Your task to perform on an android device: Go to settings Image 0: 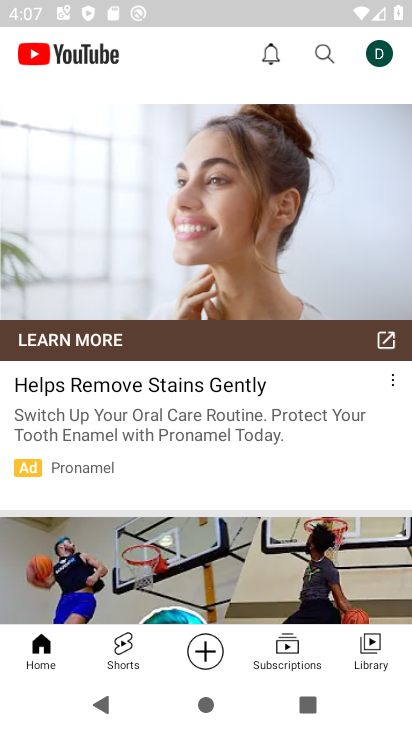
Step 0: press home button
Your task to perform on an android device: Go to settings Image 1: 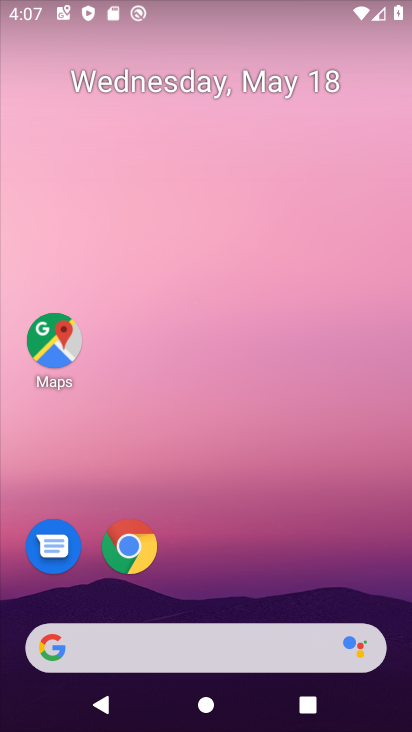
Step 1: drag from (200, 567) to (275, 0)
Your task to perform on an android device: Go to settings Image 2: 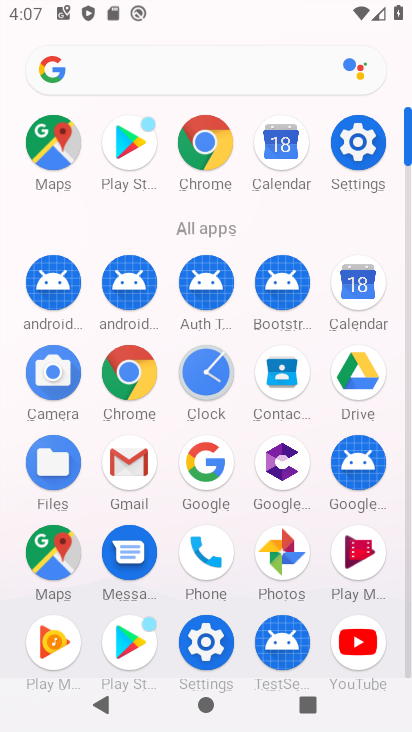
Step 2: click (356, 165)
Your task to perform on an android device: Go to settings Image 3: 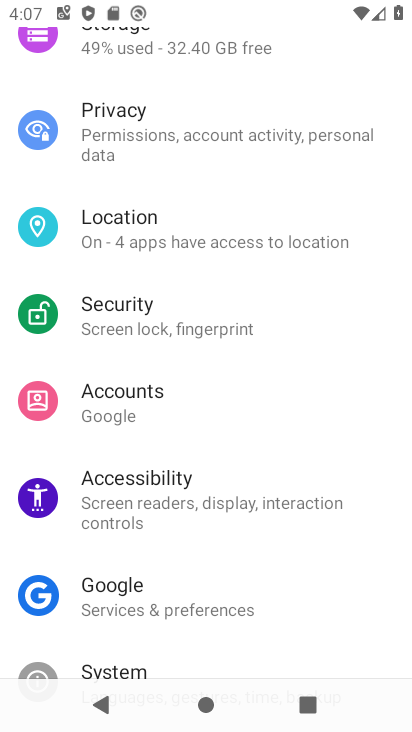
Step 3: task complete